Your task to perform on an android device: change alarm snooze length Image 0: 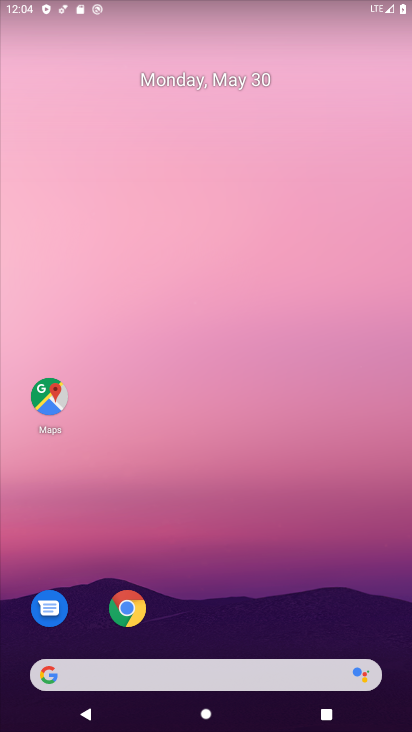
Step 0: drag from (253, 538) to (258, 129)
Your task to perform on an android device: change alarm snooze length Image 1: 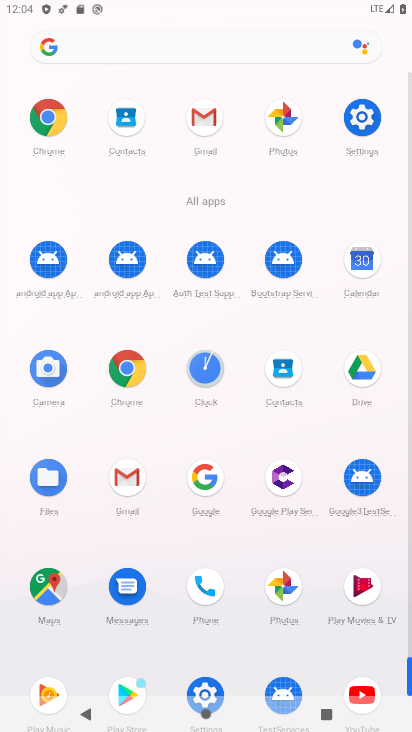
Step 1: click (362, 137)
Your task to perform on an android device: change alarm snooze length Image 2: 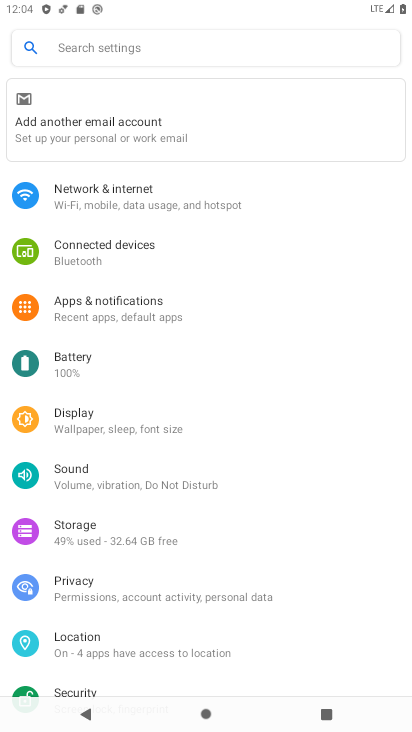
Step 2: press home button
Your task to perform on an android device: change alarm snooze length Image 3: 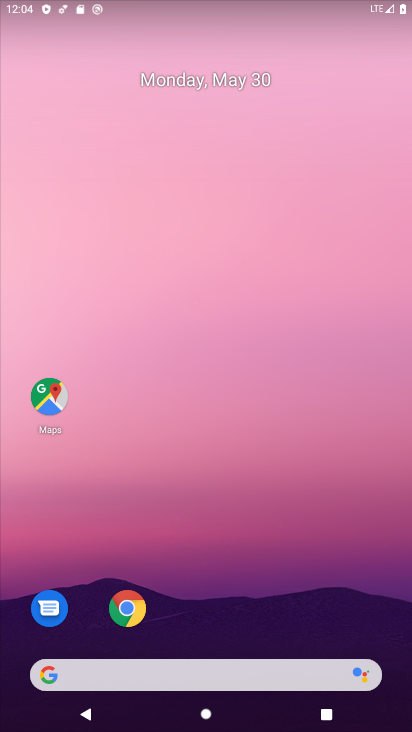
Step 3: drag from (266, 635) to (279, 293)
Your task to perform on an android device: change alarm snooze length Image 4: 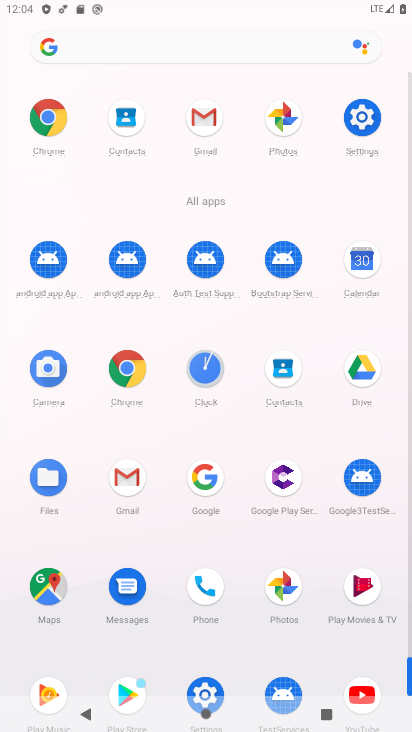
Step 4: click (209, 380)
Your task to perform on an android device: change alarm snooze length Image 5: 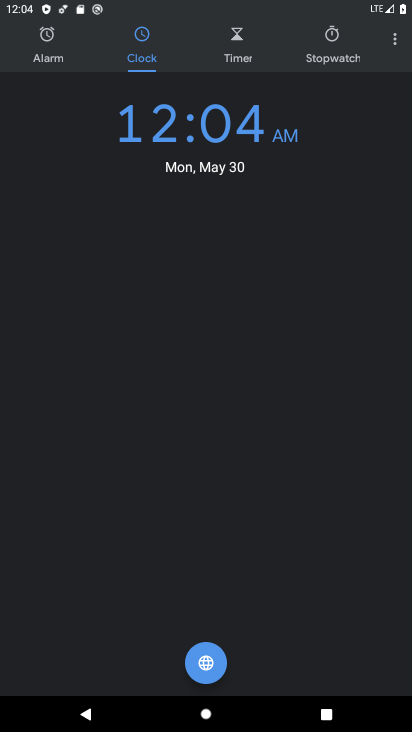
Step 5: click (387, 41)
Your task to perform on an android device: change alarm snooze length Image 6: 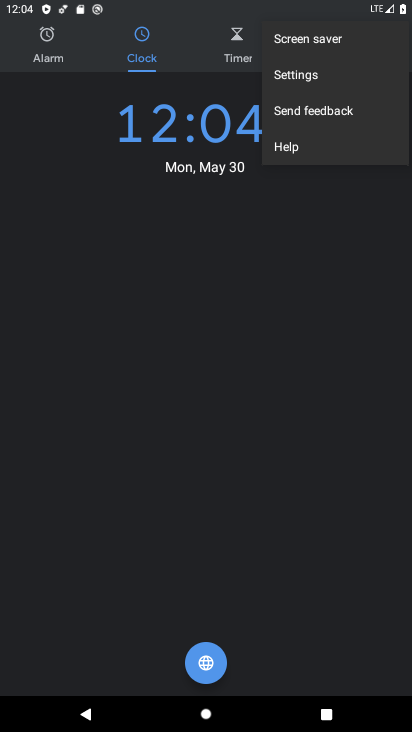
Step 6: click (285, 82)
Your task to perform on an android device: change alarm snooze length Image 7: 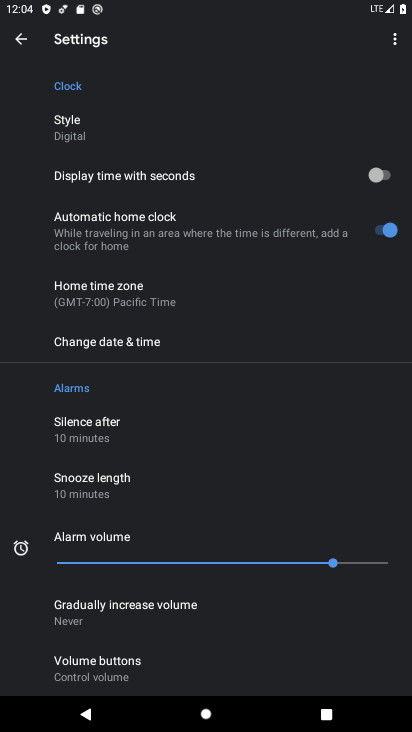
Step 7: drag from (154, 546) to (169, 270)
Your task to perform on an android device: change alarm snooze length Image 8: 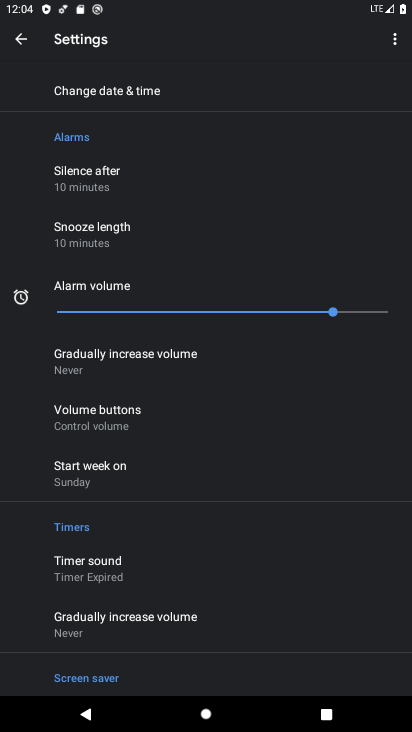
Step 8: drag from (134, 507) to (184, 234)
Your task to perform on an android device: change alarm snooze length Image 9: 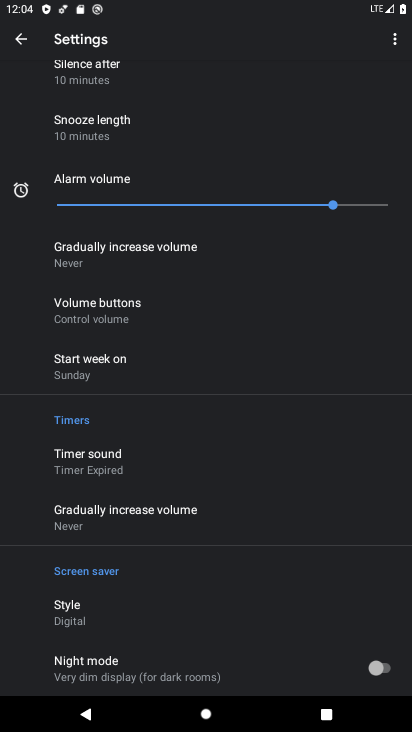
Step 9: drag from (140, 601) to (178, 487)
Your task to perform on an android device: change alarm snooze length Image 10: 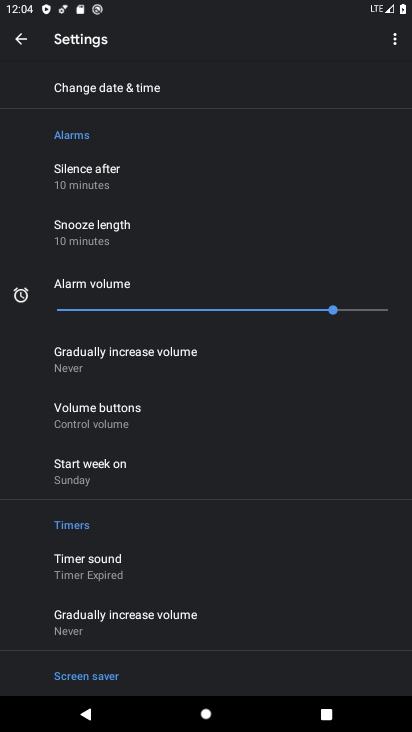
Step 10: click (127, 230)
Your task to perform on an android device: change alarm snooze length Image 11: 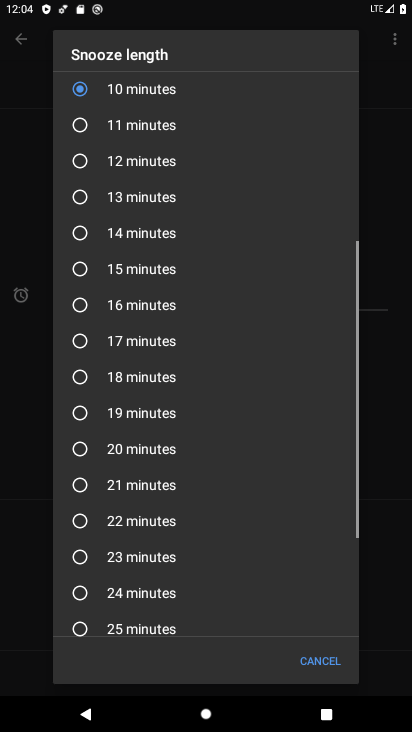
Step 11: click (128, 267)
Your task to perform on an android device: change alarm snooze length Image 12: 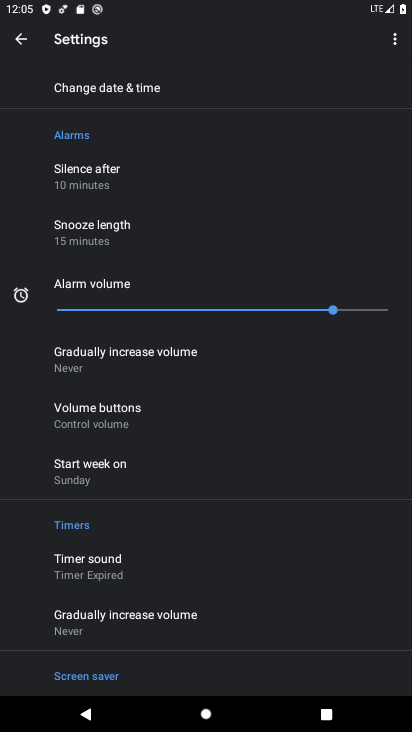
Step 12: task complete